Your task to perform on an android device: Open Google Chrome Image 0: 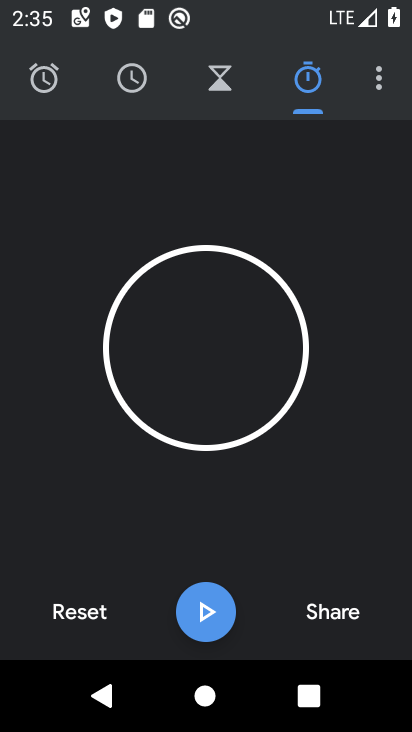
Step 0: press home button
Your task to perform on an android device: Open Google Chrome Image 1: 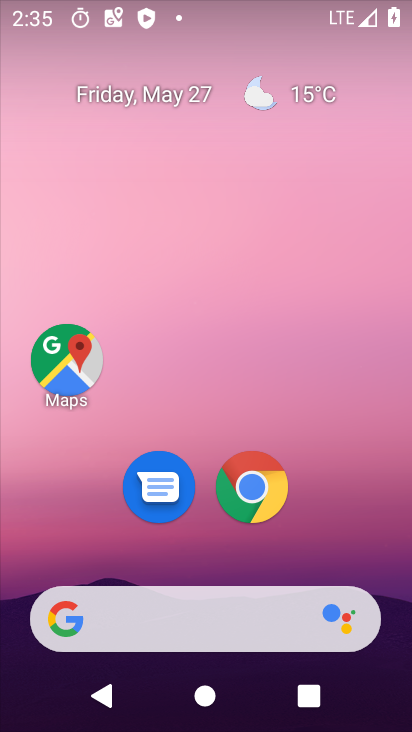
Step 1: click (252, 487)
Your task to perform on an android device: Open Google Chrome Image 2: 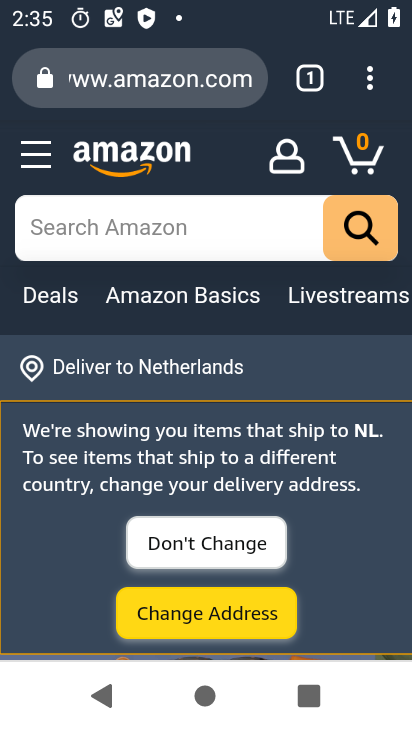
Step 2: task complete